Your task to perform on an android device: Open privacy settings Image 0: 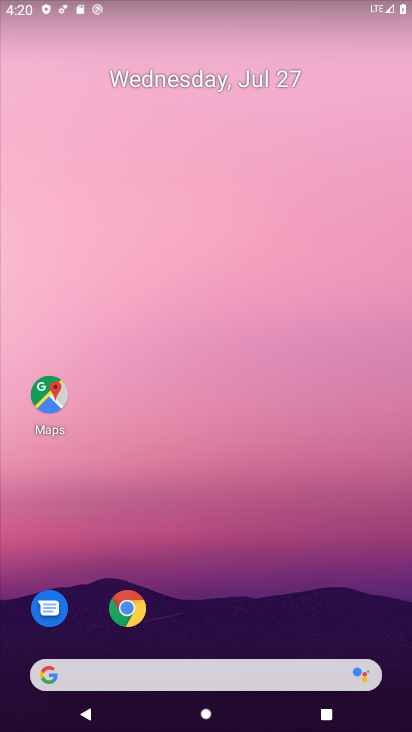
Step 0: click (153, 108)
Your task to perform on an android device: Open privacy settings Image 1: 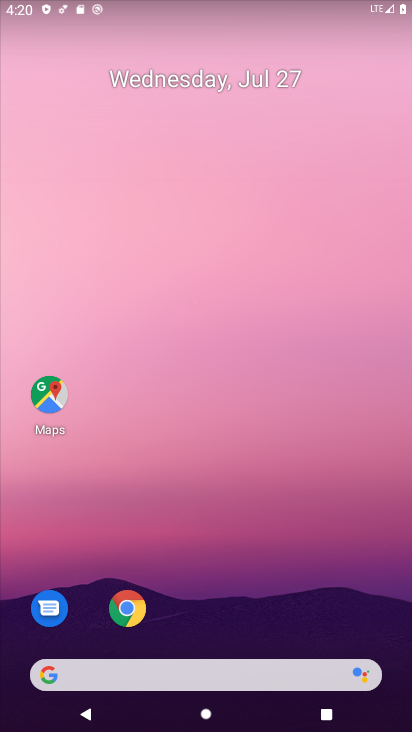
Step 1: drag from (176, 421) to (176, 126)
Your task to perform on an android device: Open privacy settings Image 2: 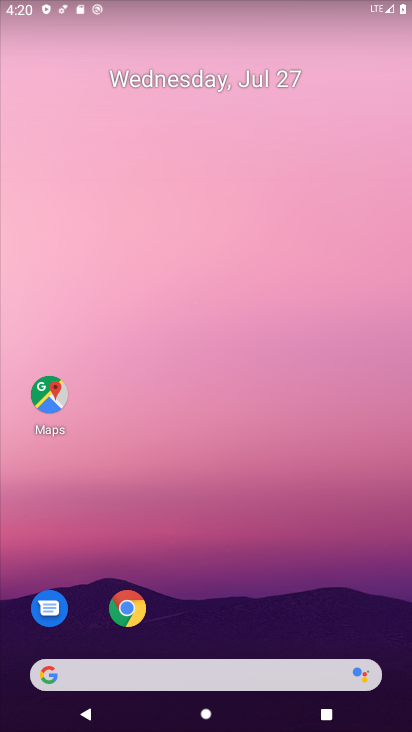
Step 2: drag from (197, 476) to (197, 129)
Your task to perform on an android device: Open privacy settings Image 3: 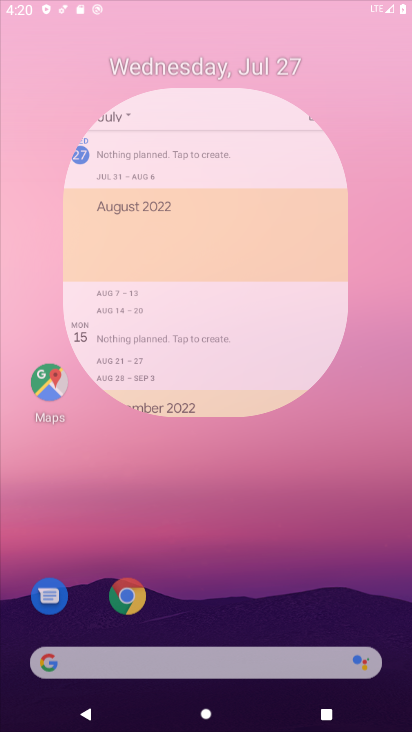
Step 3: drag from (204, 392) to (245, 88)
Your task to perform on an android device: Open privacy settings Image 4: 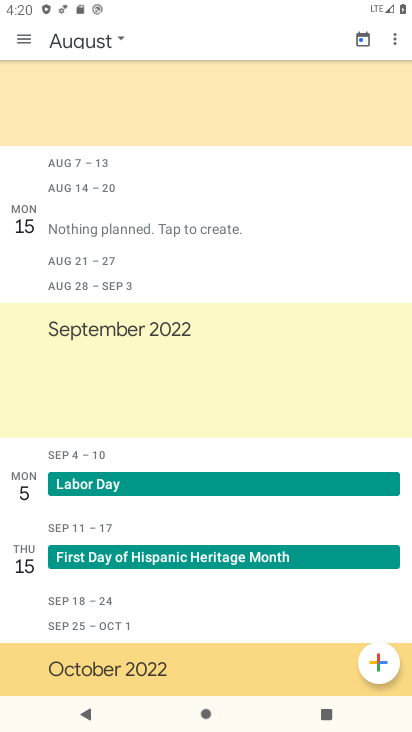
Step 4: drag from (298, 321) to (327, 132)
Your task to perform on an android device: Open privacy settings Image 5: 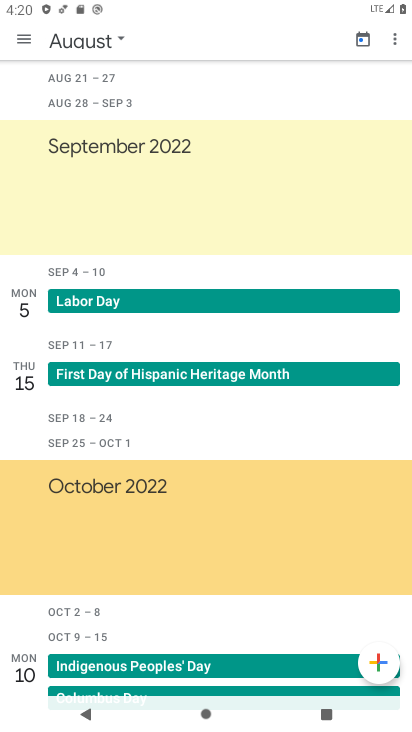
Step 5: press back button
Your task to perform on an android device: Open privacy settings Image 6: 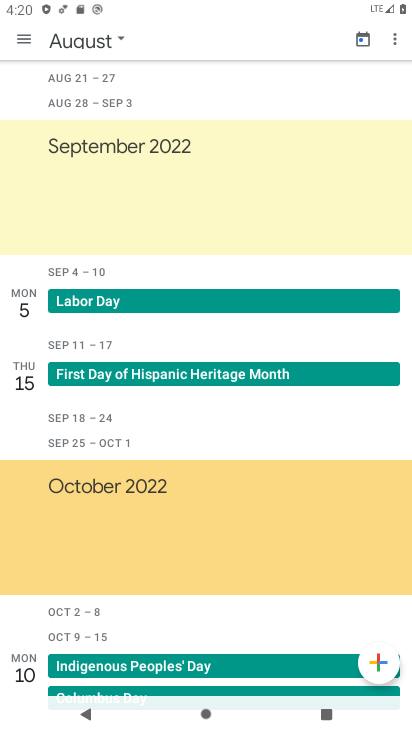
Step 6: press back button
Your task to perform on an android device: Open privacy settings Image 7: 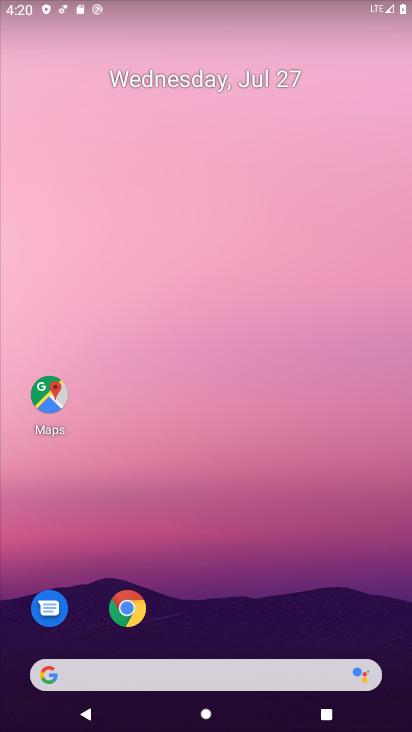
Step 7: drag from (303, 604) to (196, 203)
Your task to perform on an android device: Open privacy settings Image 8: 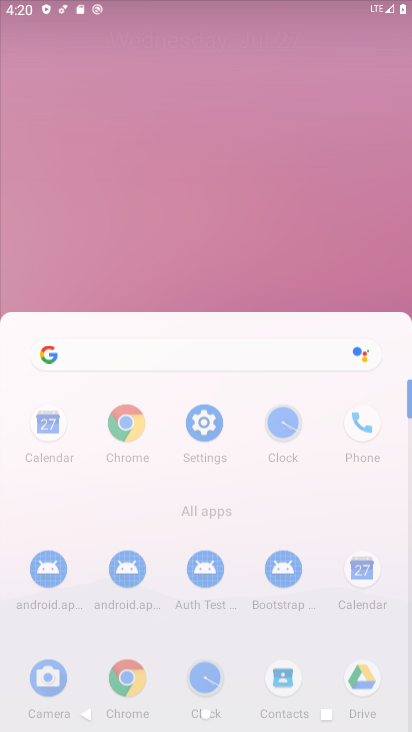
Step 8: drag from (172, 454) to (140, 282)
Your task to perform on an android device: Open privacy settings Image 9: 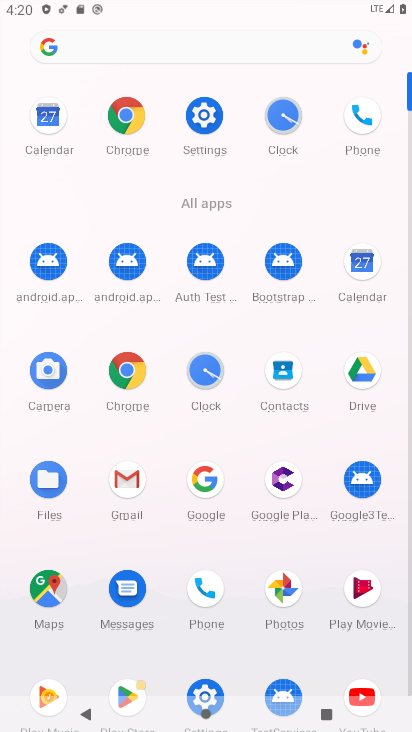
Step 9: drag from (211, 454) to (178, 222)
Your task to perform on an android device: Open privacy settings Image 10: 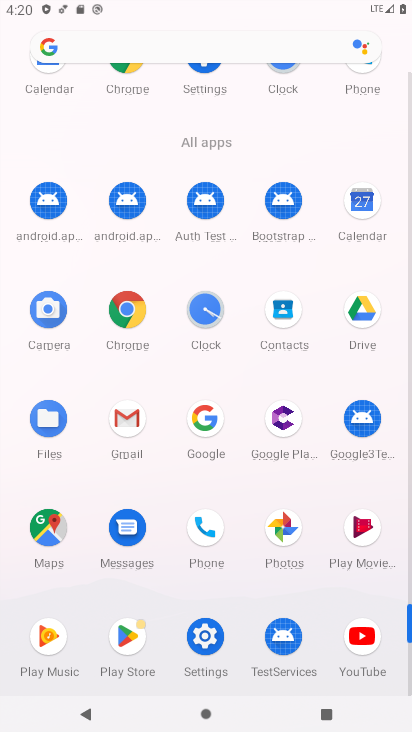
Step 10: click (212, 108)
Your task to perform on an android device: Open privacy settings Image 11: 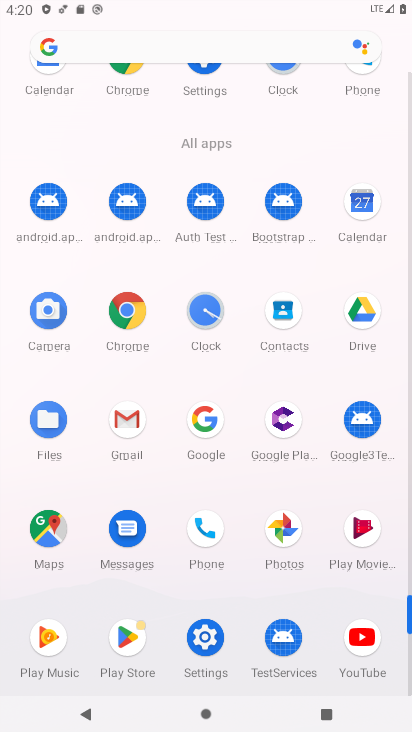
Step 11: click (215, 649)
Your task to perform on an android device: Open privacy settings Image 12: 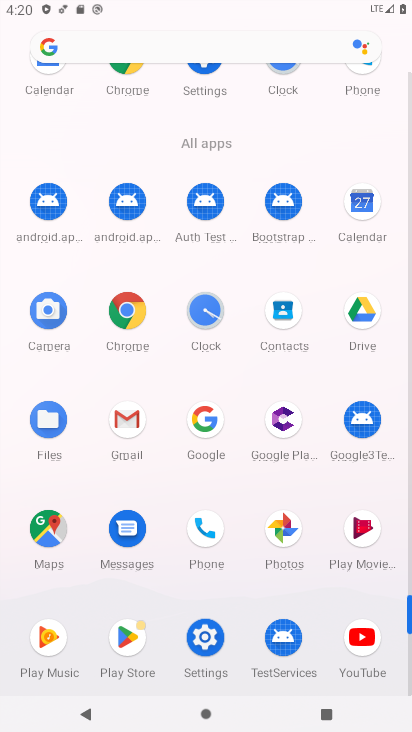
Step 12: click (218, 643)
Your task to perform on an android device: Open privacy settings Image 13: 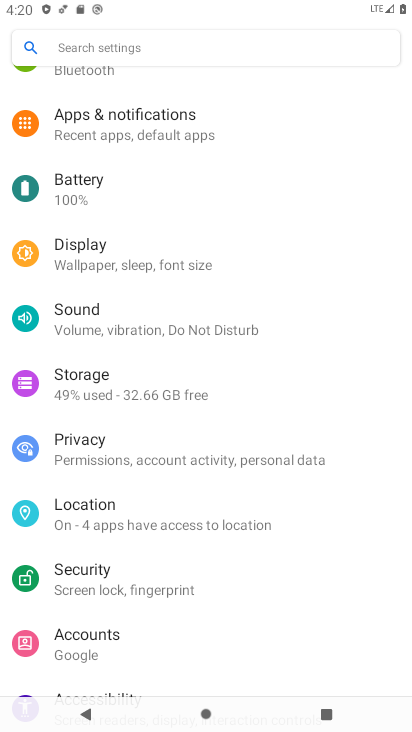
Step 13: click (81, 453)
Your task to perform on an android device: Open privacy settings Image 14: 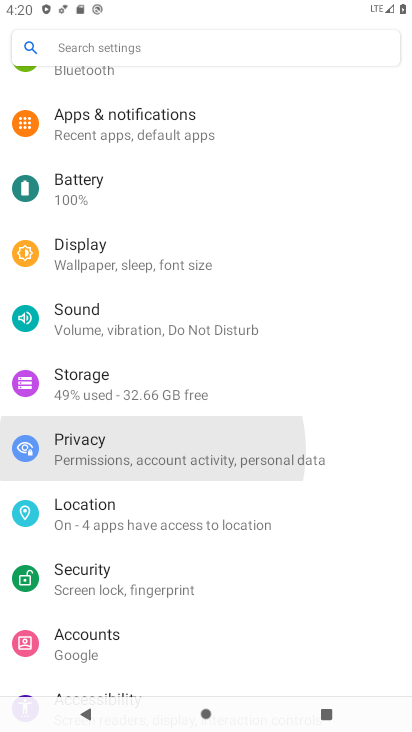
Step 14: click (82, 452)
Your task to perform on an android device: Open privacy settings Image 15: 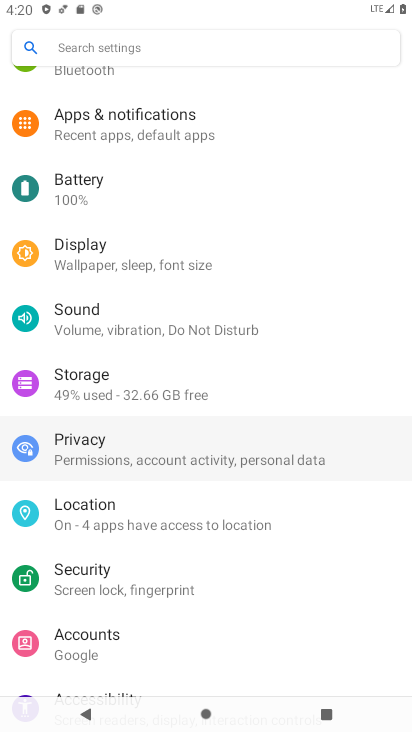
Step 15: click (83, 452)
Your task to perform on an android device: Open privacy settings Image 16: 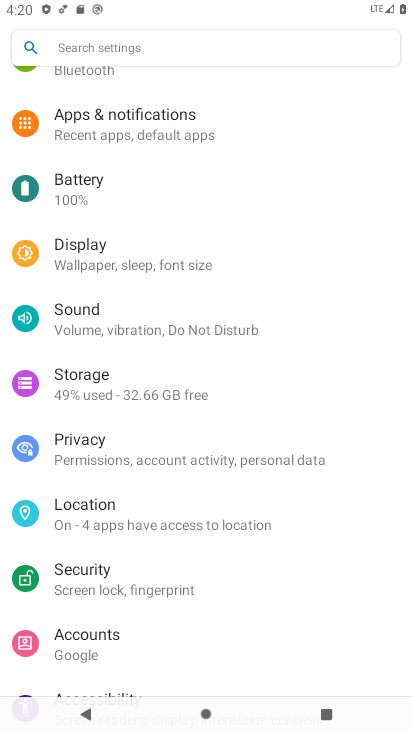
Step 16: click (85, 452)
Your task to perform on an android device: Open privacy settings Image 17: 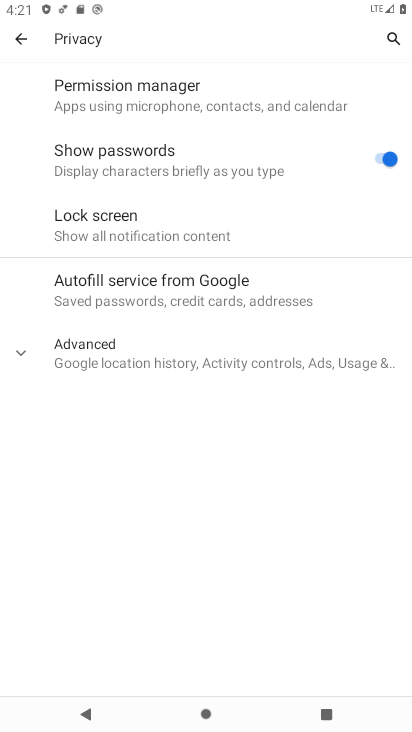
Step 17: task complete